Your task to perform on an android device: toggle sleep mode Image 0: 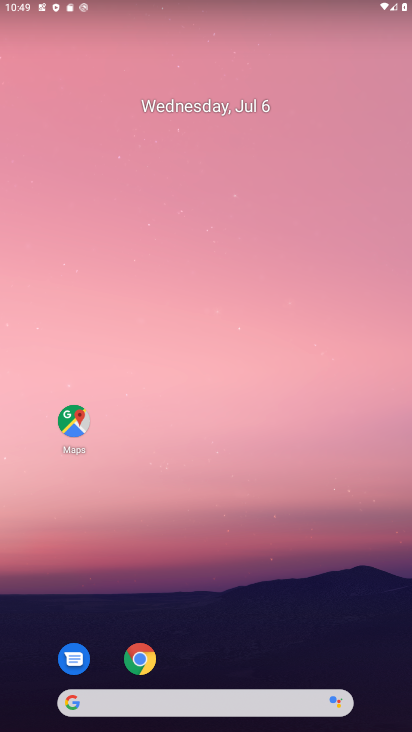
Step 0: drag from (206, 621) to (260, 91)
Your task to perform on an android device: toggle sleep mode Image 1: 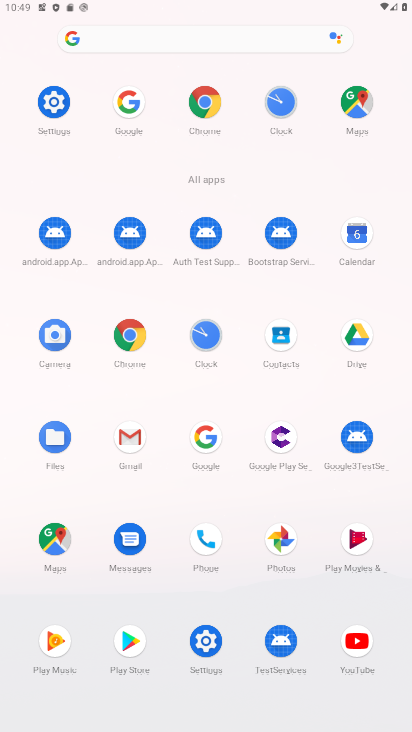
Step 1: click (55, 94)
Your task to perform on an android device: toggle sleep mode Image 2: 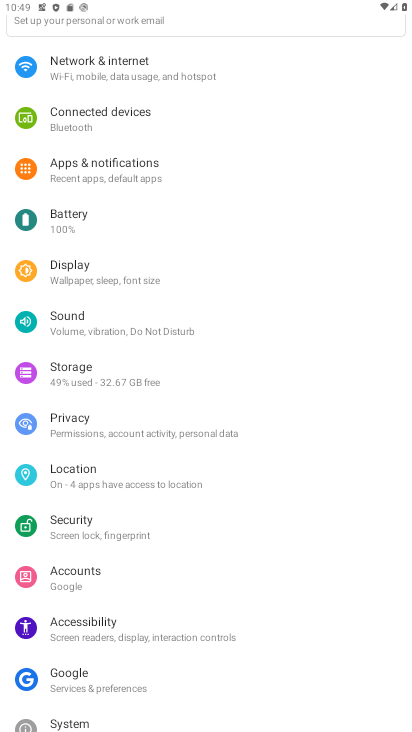
Step 2: drag from (203, 185) to (213, 728)
Your task to perform on an android device: toggle sleep mode Image 3: 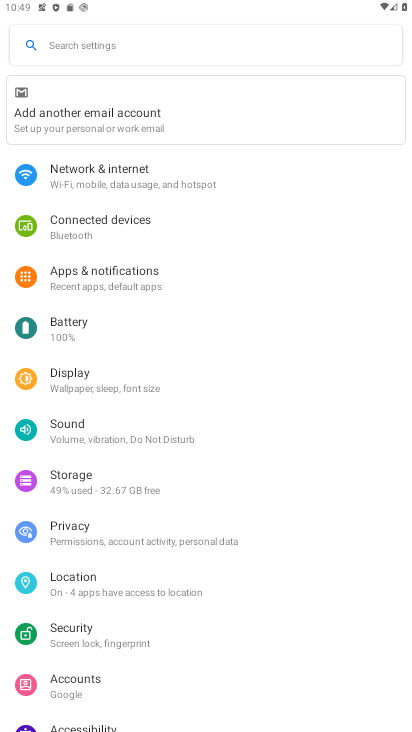
Step 3: click (175, 50)
Your task to perform on an android device: toggle sleep mode Image 4: 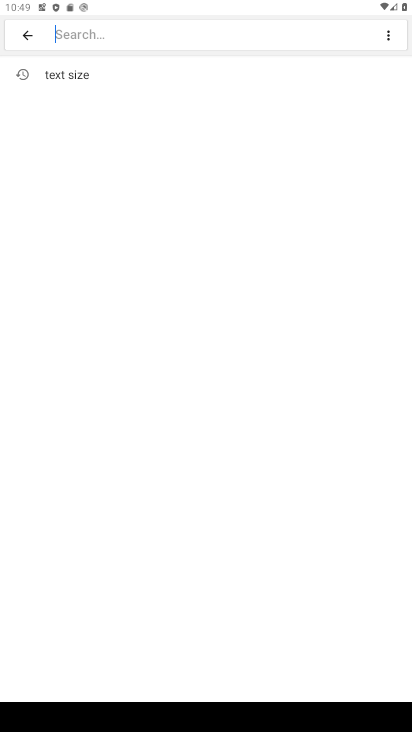
Step 4: type "sleep mode"
Your task to perform on an android device: toggle sleep mode Image 5: 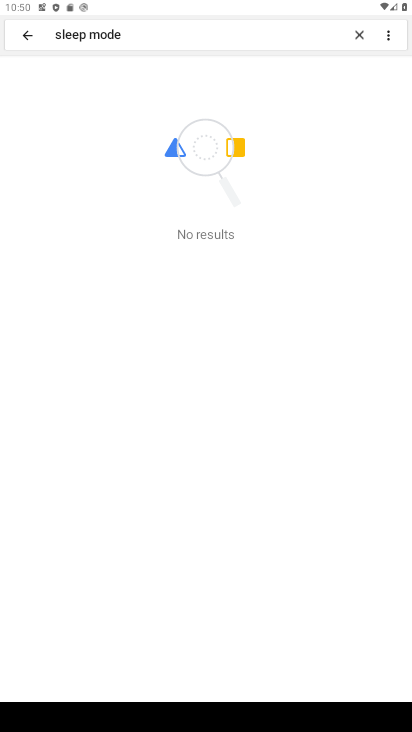
Step 5: task complete